Your task to perform on an android device: Empty the shopping cart on target.com. Add acer predator to the cart on target.com Image 0: 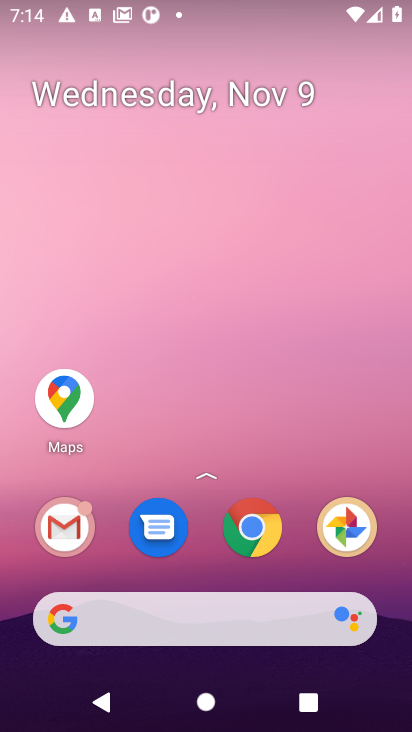
Step 0: click (254, 535)
Your task to perform on an android device: Empty the shopping cart on target.com. Add acer predator to the cart on target.com Image 1: 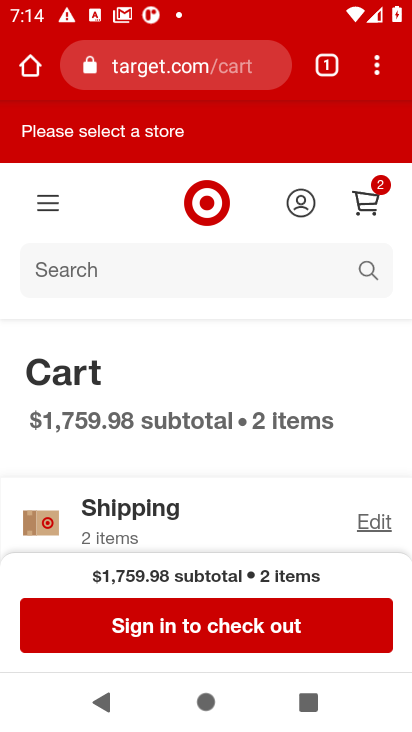
Step 1: click (373, 207)
Your task to perform on an android device: Empty the shopping cart on target.com. Add acer predator to the cart on target.com Image 2: 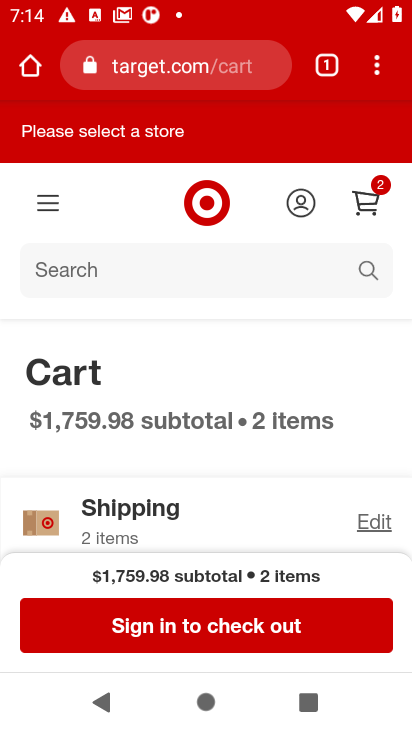
Step 2: drag from (233, 463) to (246, 237)
Your task to perform on an android device: Empty the shopping cart on target.com. Add acer predator to the cart on target.com Image 3: 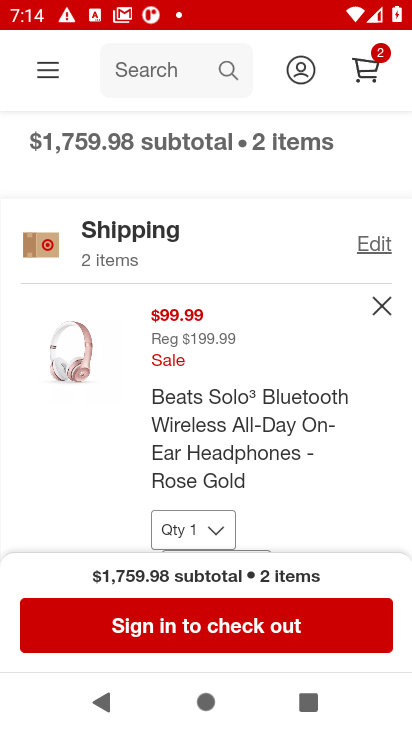
Step 3: click (375, 312)
Your task to perform on an android device: Empty the shopping cart on target.com. Add acer predator to the cart on target.com Image 4: 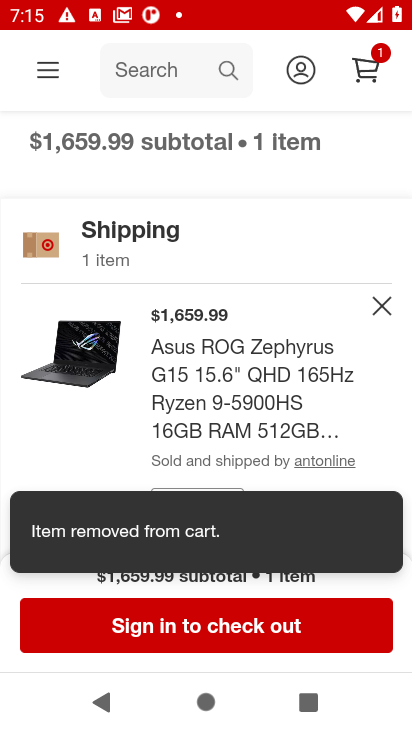
Step 4: click (379, 314)
Your task to perform on an android device: Empty the shopping cart on target.com. Add acer predator to the cart on target.com Image 5: 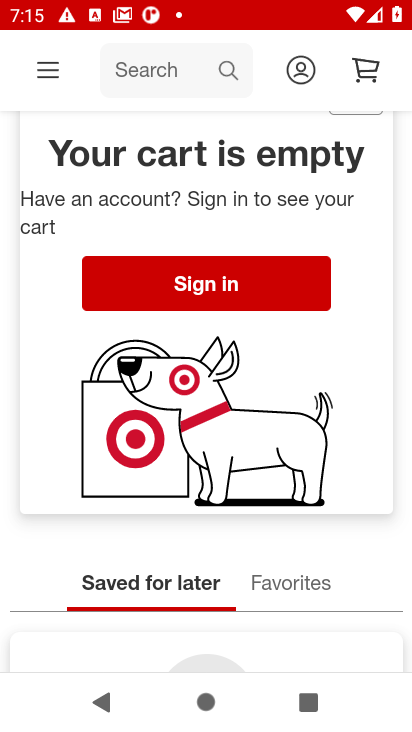
Step 5: click (230, 69)
Your task to perform on an android device: Empty the shopping cart on target.com. Add acer predator to the cart on target.com Image 6: 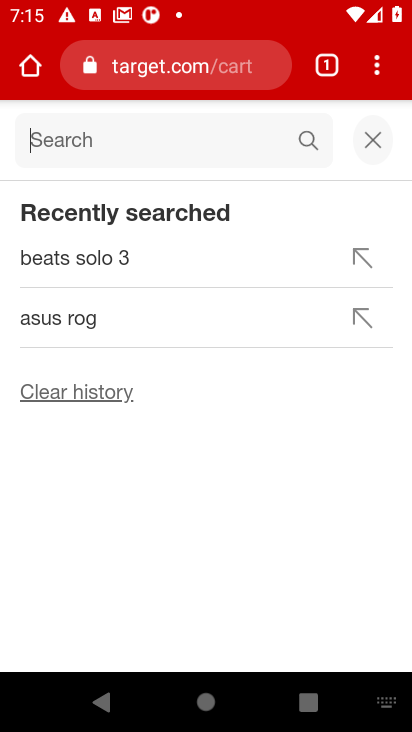
Step 6: type "acer predator"
Your task to perform on an android device: Empty the shopping cart on target.com. Add acer predator to the cart on target.com Image 7: 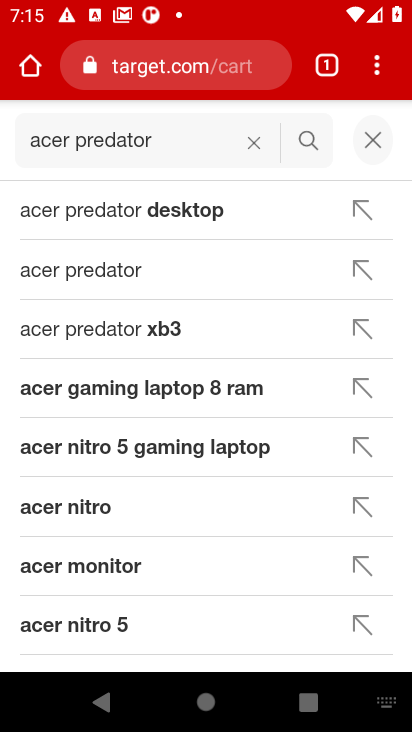
Step 7: click (102, 272)
Your task to perform on an android device: Empty the shopping cart on target.com. Add acer predator to the cart on target.com Image 8: 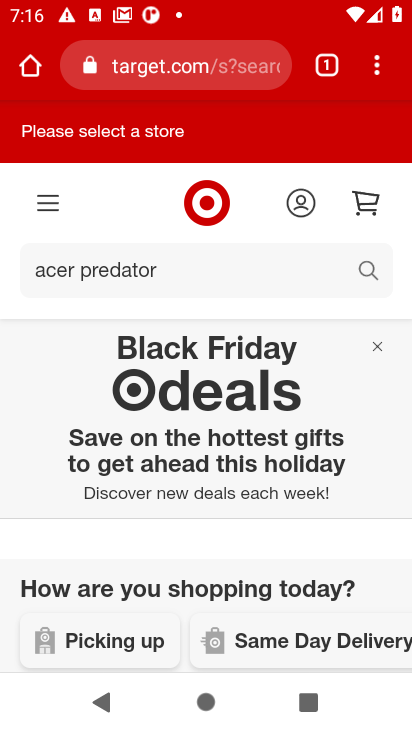
Step 8: drag from (187, 507) to (191, 198)
Your task to perform on an android device: Empty the shopping cart on target.com. Add acer predator to the cart on target.com Image 9: 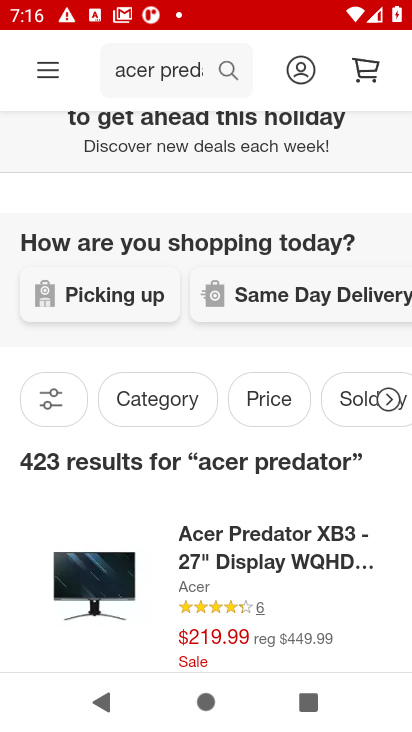
Step 9: drag from (231, 525) to (221, 262)
Your task to perform on an android device: Empty the shopping cart on target.com. Add acer predator to the cart on target.com Image 10: 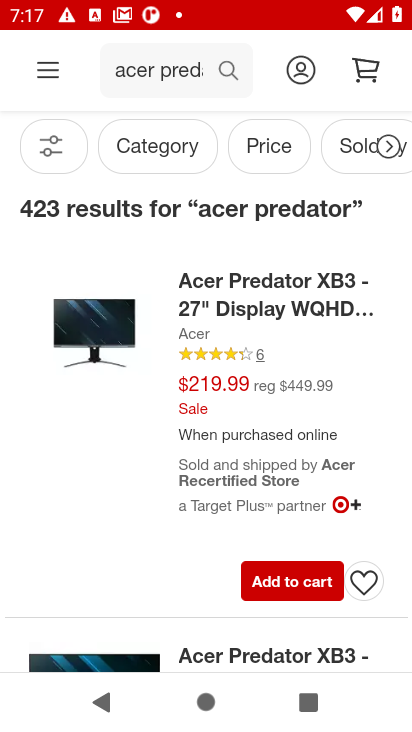
Step 10: click (200, 427)
Your task to perform on an android device: Empty the shopping cart on target.com. Add acer predator to the cart on target.com Image 11: 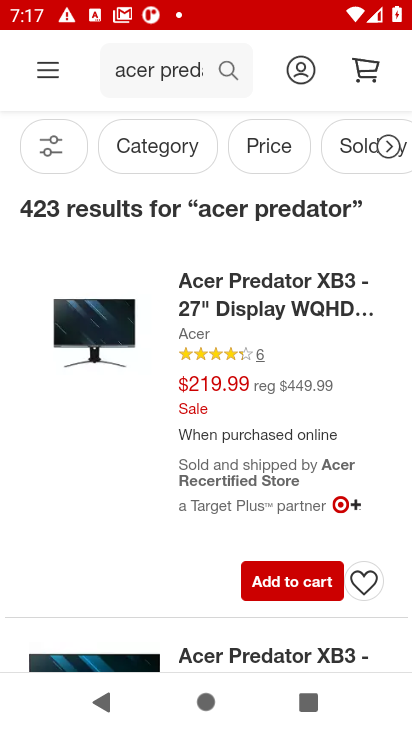
Step 11: click (111, 349)
Your task to perform on an android device: Empty the shopping cart on target.com. Add acer predator to the cart on target.com Image 12: 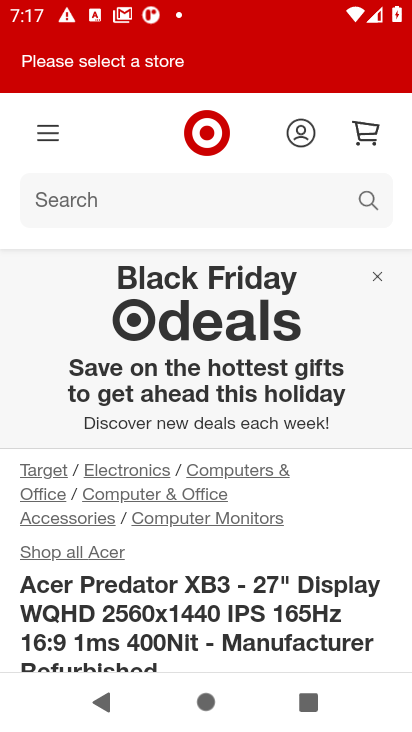
Step 12: drag from (110, 597) to (97, 317)
Your task to perform on an android device: Empty the shopping cart on target.com. Add acer predator to the cart on target.com Image 13: 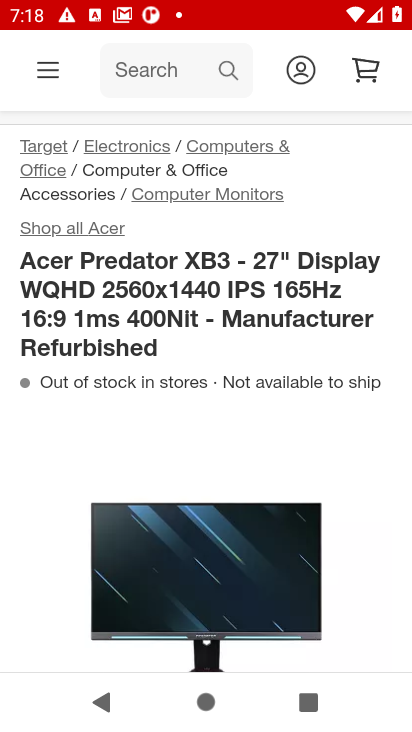
Step 13: drag from (181, 585) to (170, 262)
Your task to perform on an android device: Empty the shopping cart on target.com. Add acer predator to the cart on target.com Image 14: 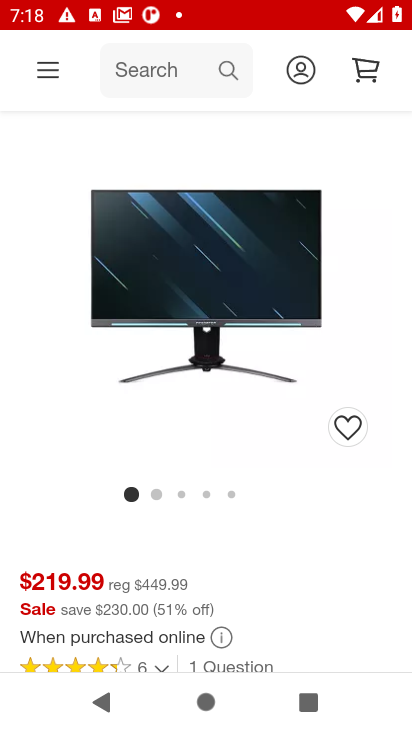
Step 14: drag from (185, 519) to (185, 252)
Your task to perform on an android device: Empty the shopping cart on target.com. Add acer predator to the cart on target.com Image 15: 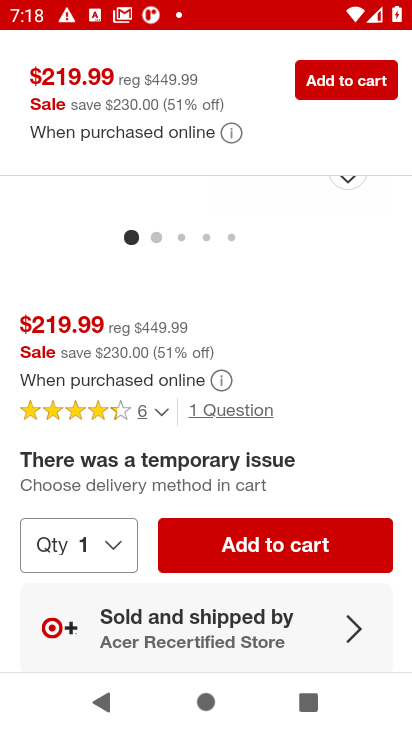
Step 15: click (258, 553)
Your task to perform on an android device: Empty the shopping cart on target.com. Add acer predator to the cart on target.com Image 16: 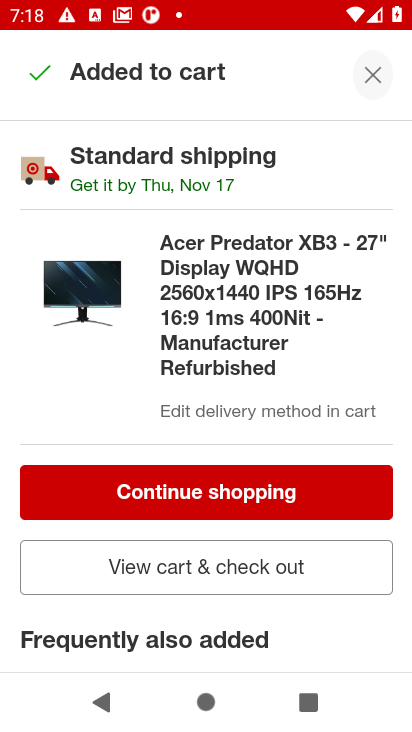
Step 16: task complete